Your task to perform on an android device: Open Chrome and go to settings Image 0: 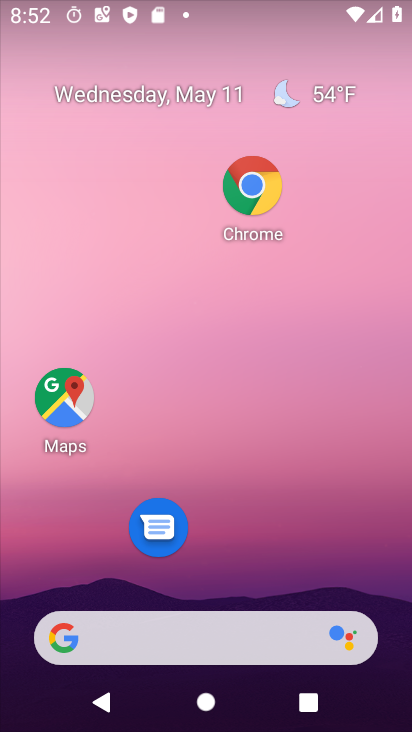
Step 0: click (252, 184)
Your task to perform on an android device: Open Chrome and go to settings Image 1: 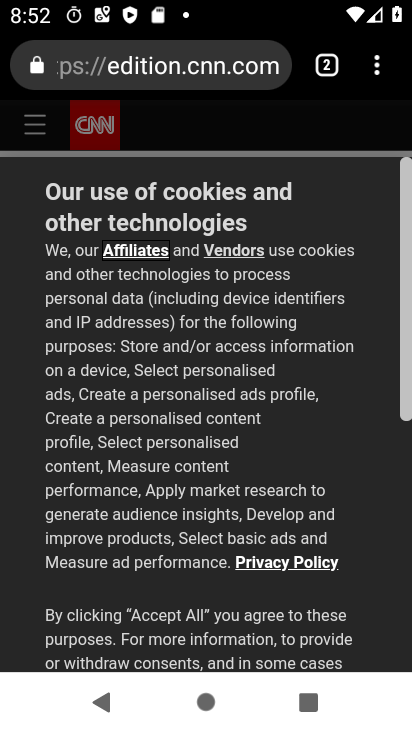
Step 1: click (364, 73)
Your task to perform on an android device: Open Chrome and go to settings Image 2: 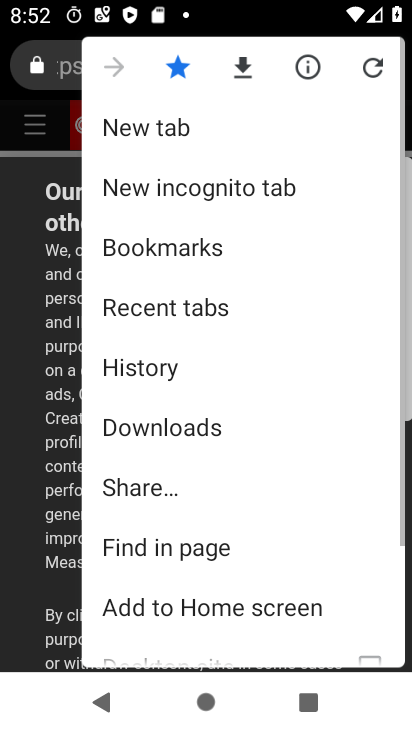
Step 2: drag from (278, 523) to (293, 104)
Your task to perform on an android device: Open Chrome and go to settings Image 3: 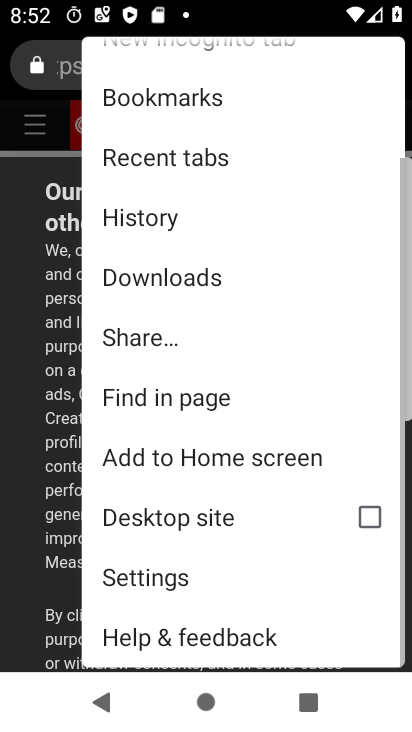
Step 3: click (180, 580)
Your task to perform on an android device: Open Chrome and go to settings Image 4: 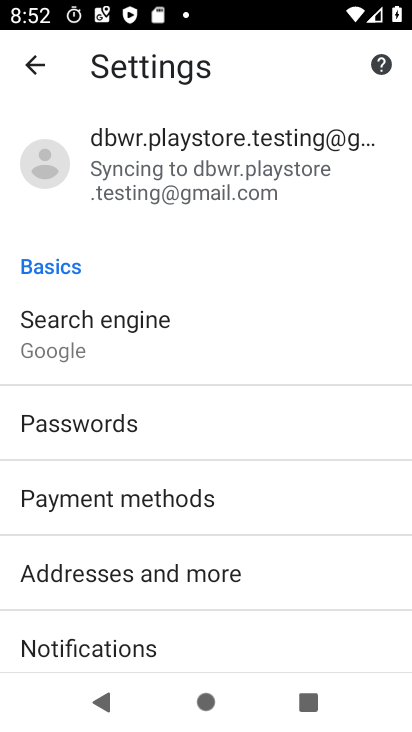
Step 4: task complete